Your task to perform on an android device: turn on the 12-hour format for clock Image 0: 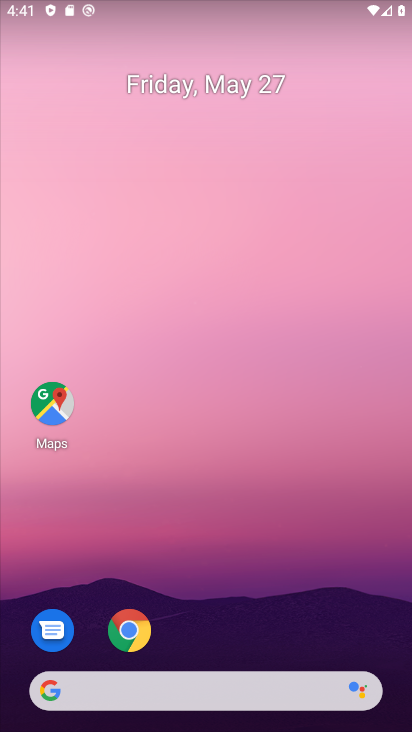
Step 0: drag from (185, 598) to (316, 121)
Your task to perform on an android device: turn on the 12-hour format for clock Image 1: 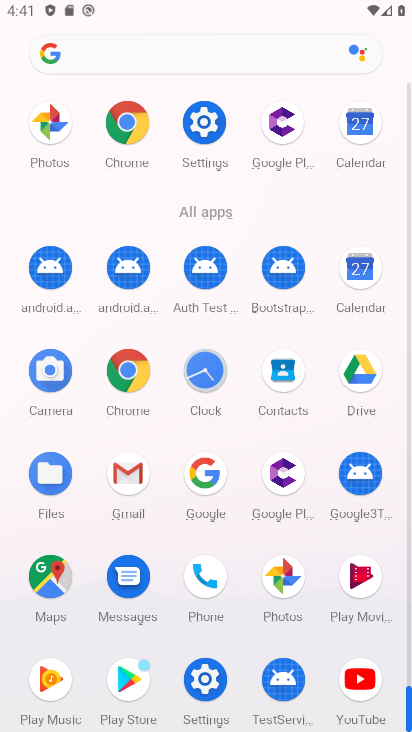
Step 1: click (196, 384)
Your task to perform on an android device: turn on the 12-hour format for clock Image 2: 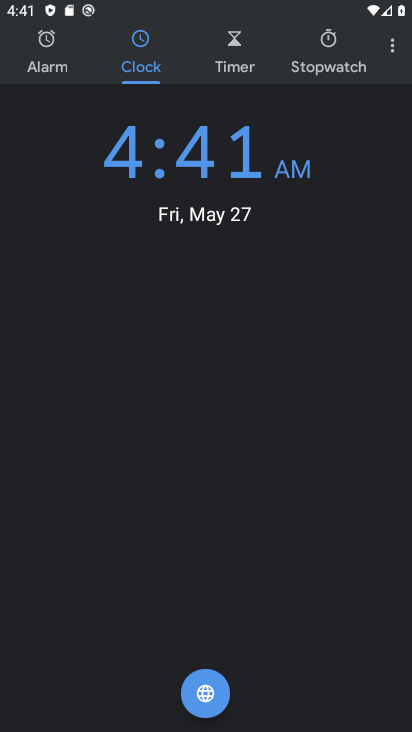
Step 2: click (379, 43)
Your task to perform on an android device: turn on the 12-hour format for clock Image 3: 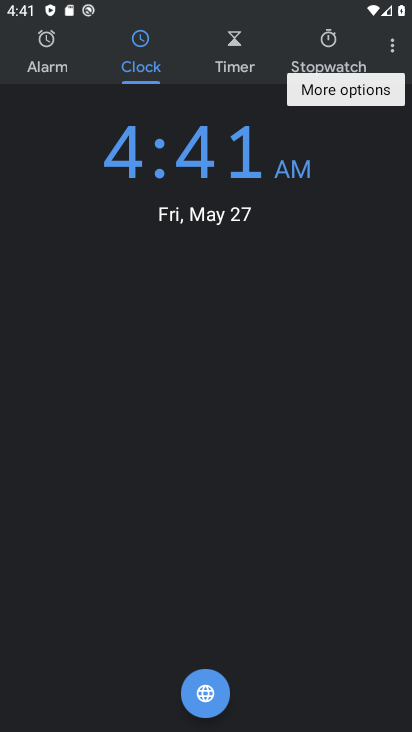
Step 3: click (391, 53)
Your task to perform on an android device: turn on the 12-hour format for clock Image 4: 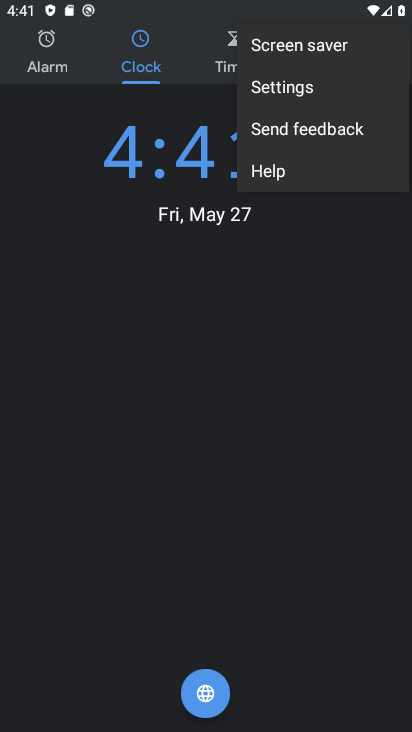
Step 4: click (351, 94)
Your task to perform on an android device: turn on the 12-hour format for clock Image 5: 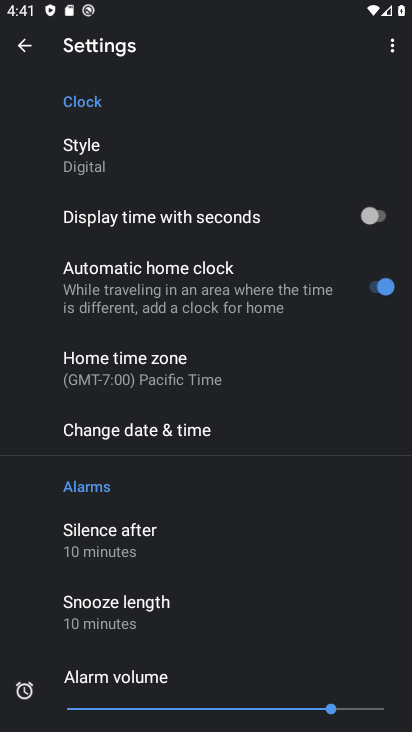
Step 5: click (244, 433)
Your task to perform on an android device: turn on the 12-hour format for clock Image 6: 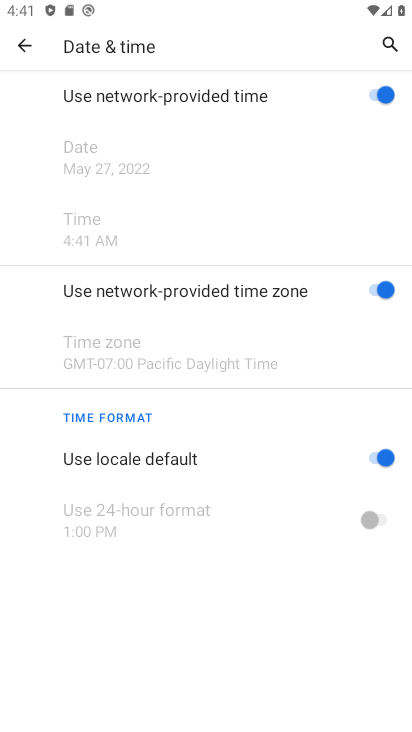
Step 6: task complete